Your task to perform on an android device: View the shopping cart on walmart. Add dell xps to the cart on walmart Image 0: 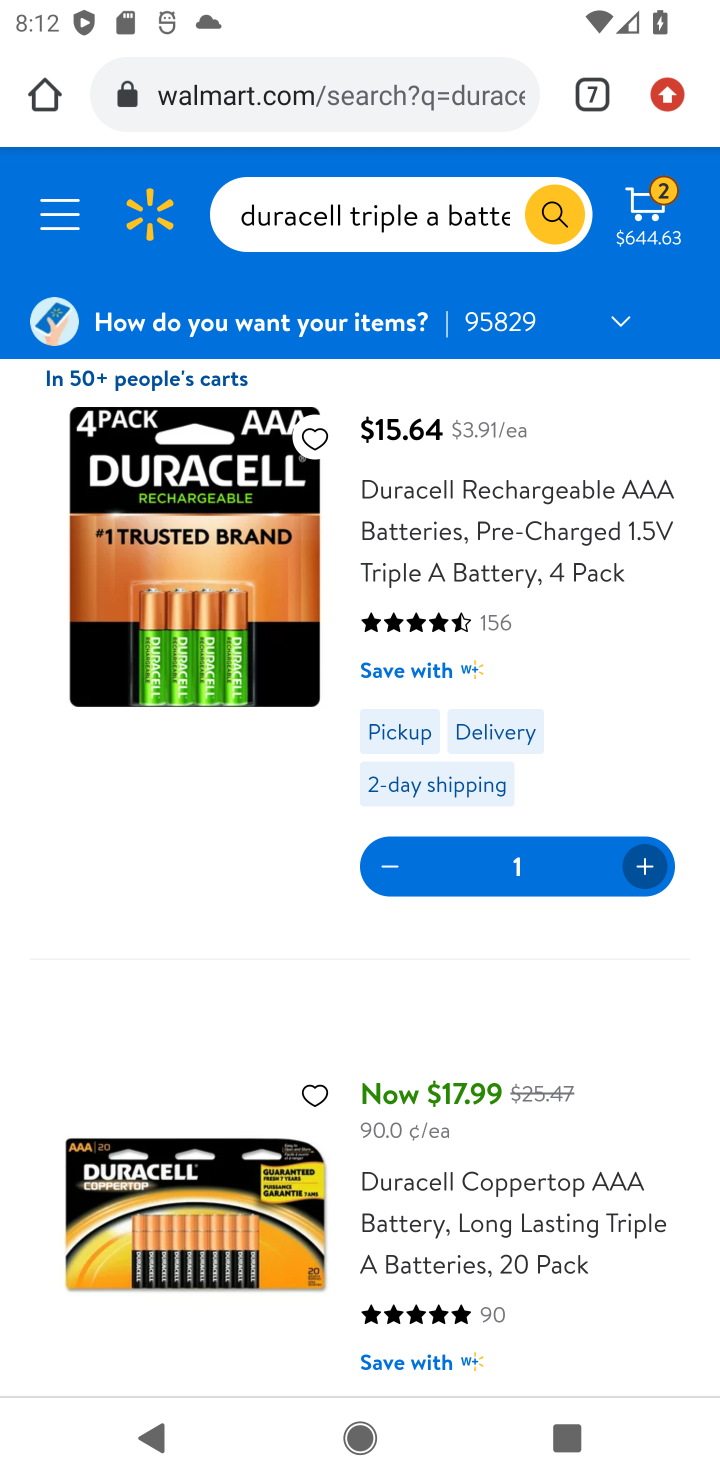
Step 0: click (638, 217)
Your task to perform on an android device: View the shopping cart on walmart. Add dell xps to the cart on walmart Image 1: 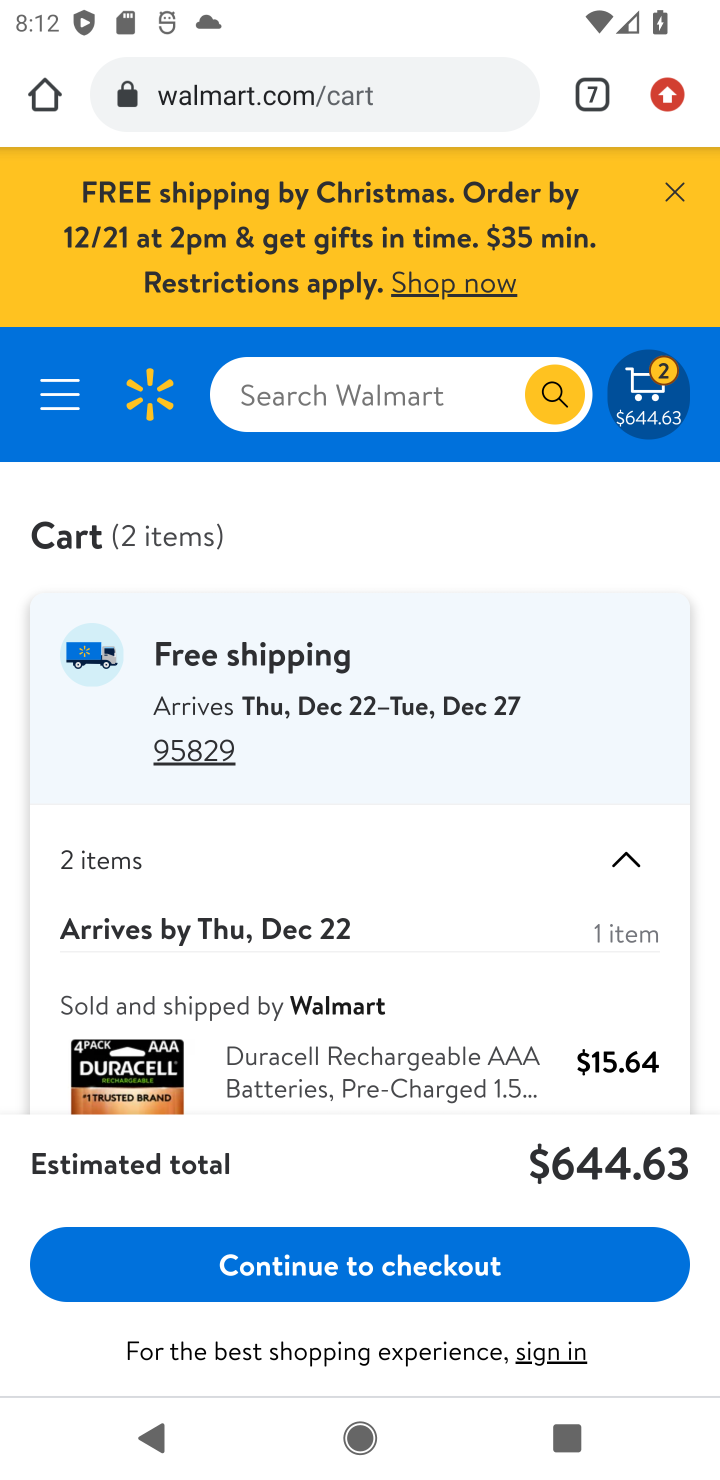
Step 1: click (671, 187)
Your task to perform on an android device: View the shopping cart on walmart. Add dell xps to the cart on walmart Image 2: 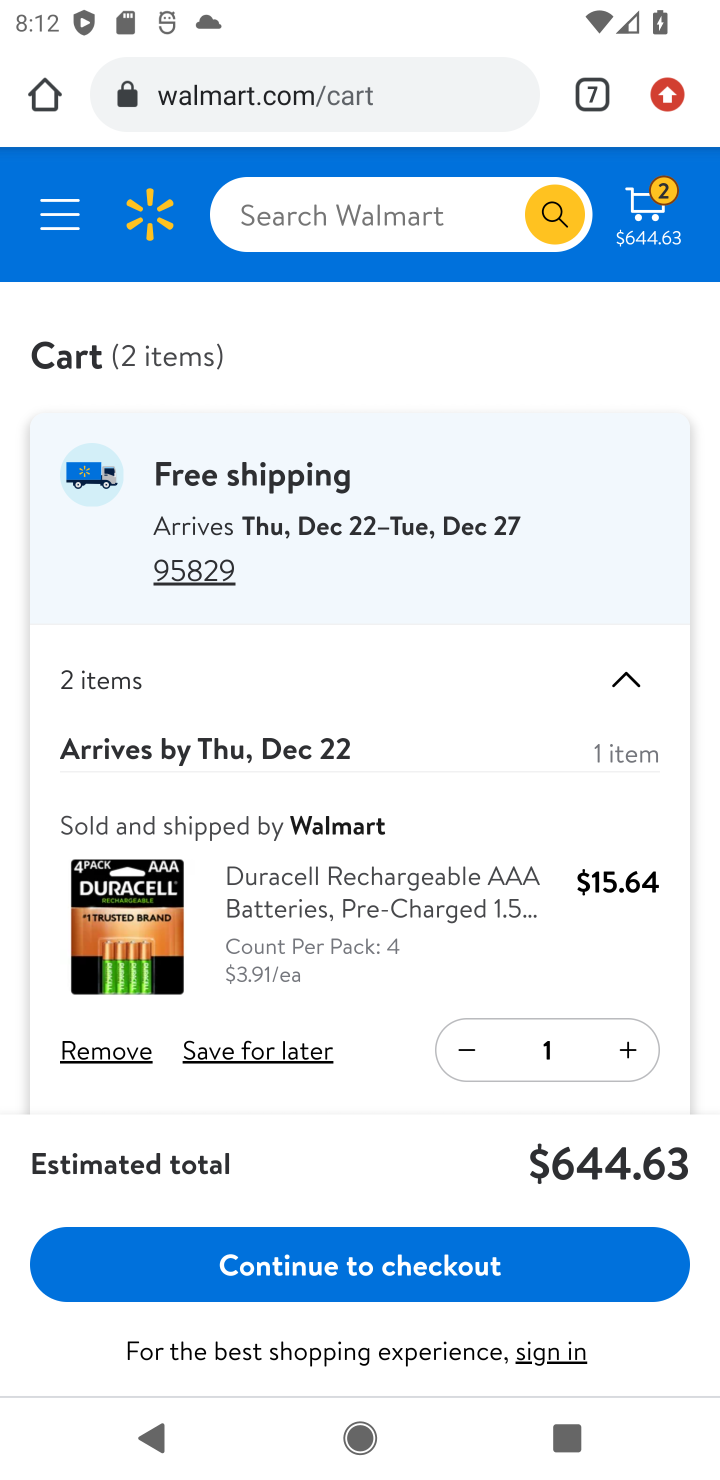
Step 2: click (379, 211)
Your task to perform on an android device: View the shopping cart on walmart. Add dell xps to the cart on walmart Image 3: 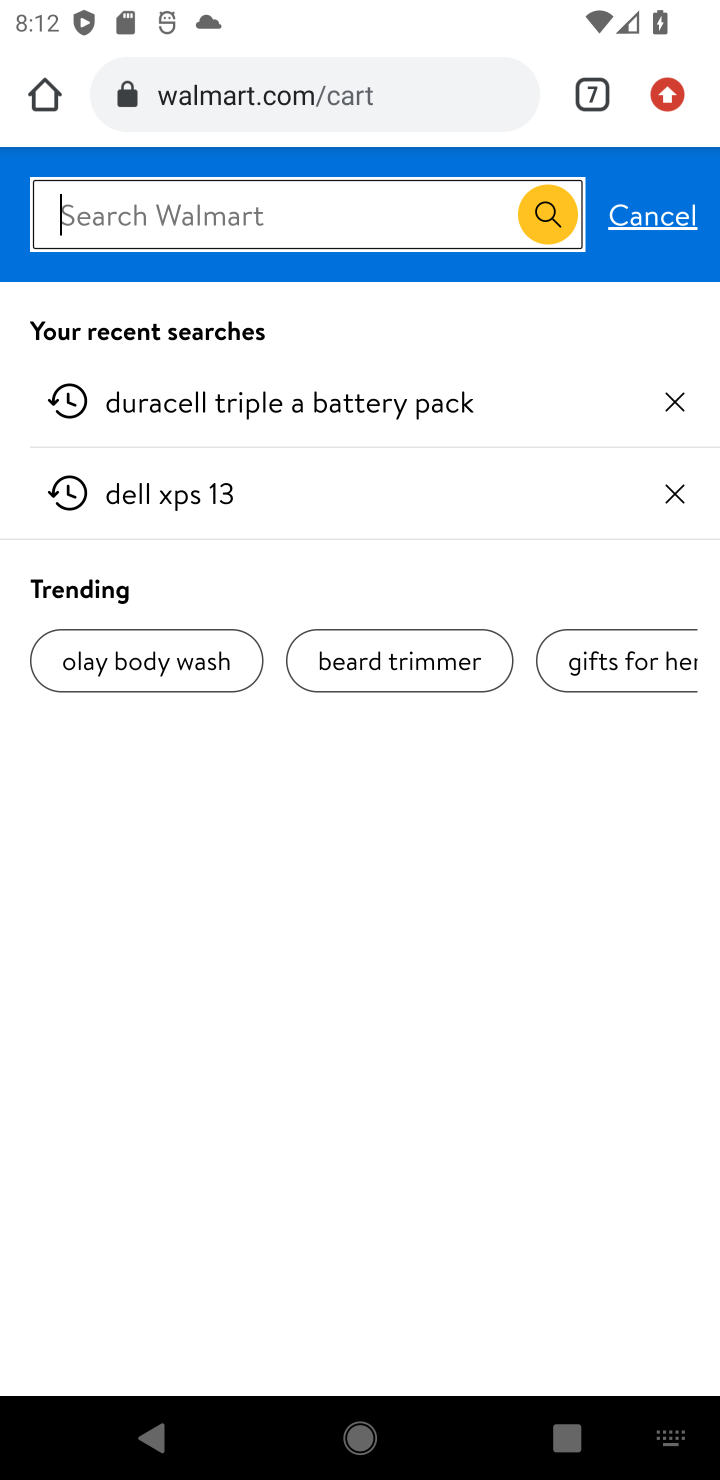
Step 3: type "dell xps"
Your task to perform on an android device: View the shopping cart on walmart. Add dell xps to the cart on walmart Image 4: 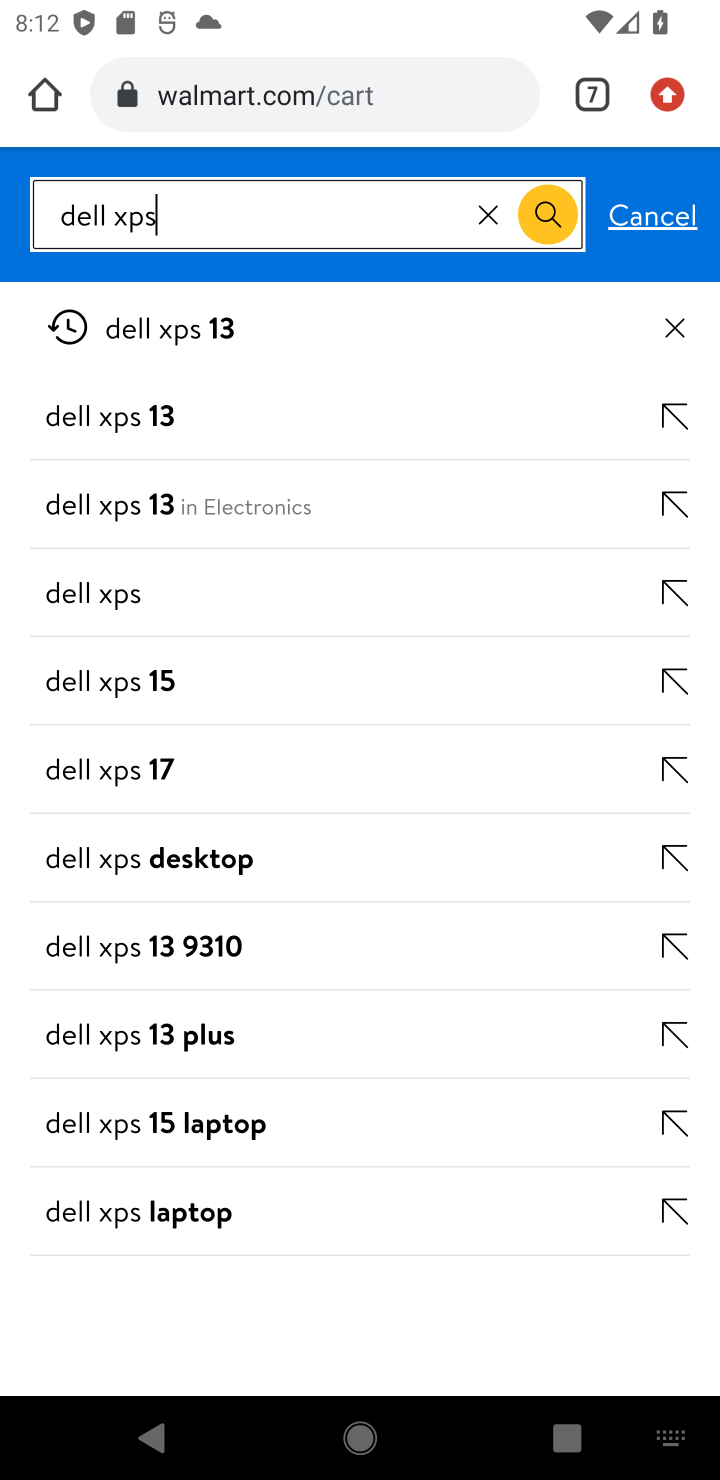
Step 4: click (140, 501)
Your task to perform on an android device: View the shopping cart on walmart. Add dell xps to the cart on walmart Image 5: 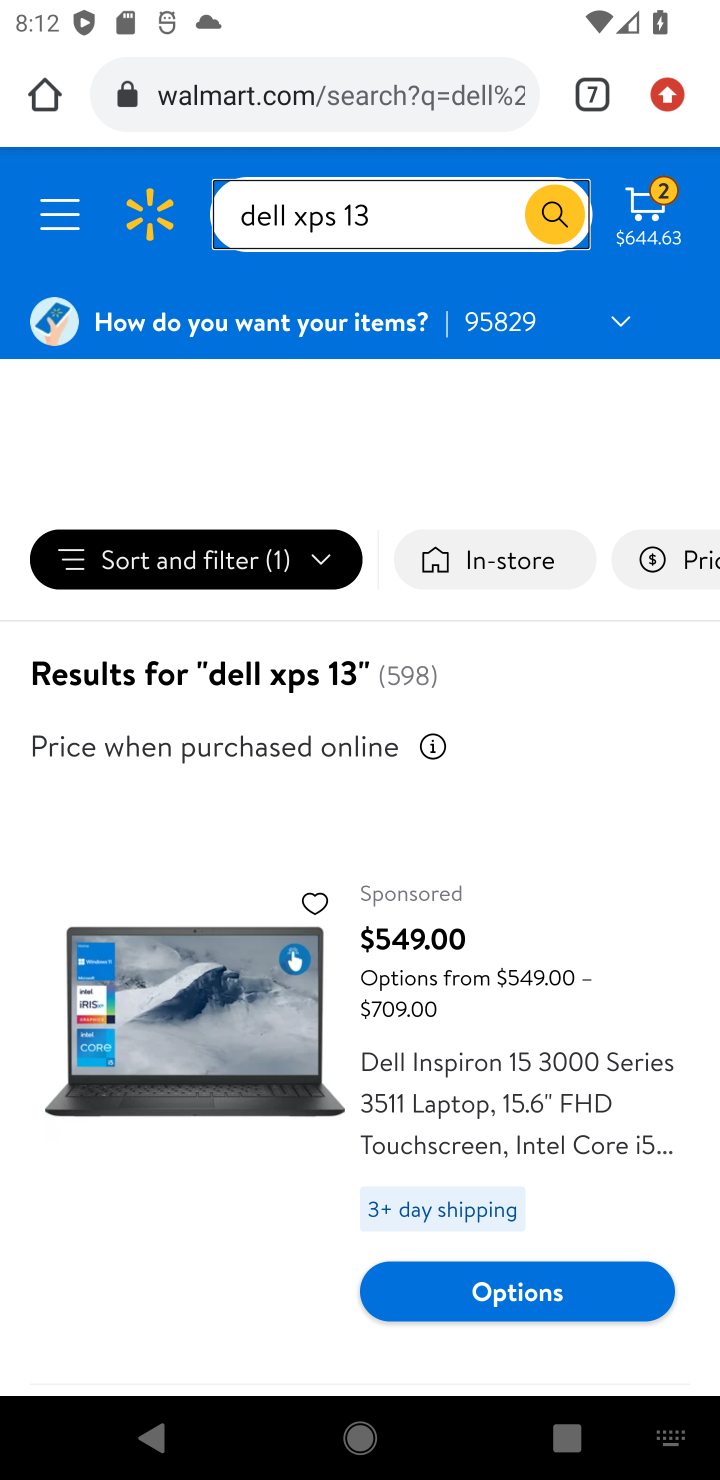
Step 5: drag from (246, 1217) to (370, 754)
Your task to perform on an android device: View the shopping cart on walmart. Add dell xps to the cart on walmart Image 6: 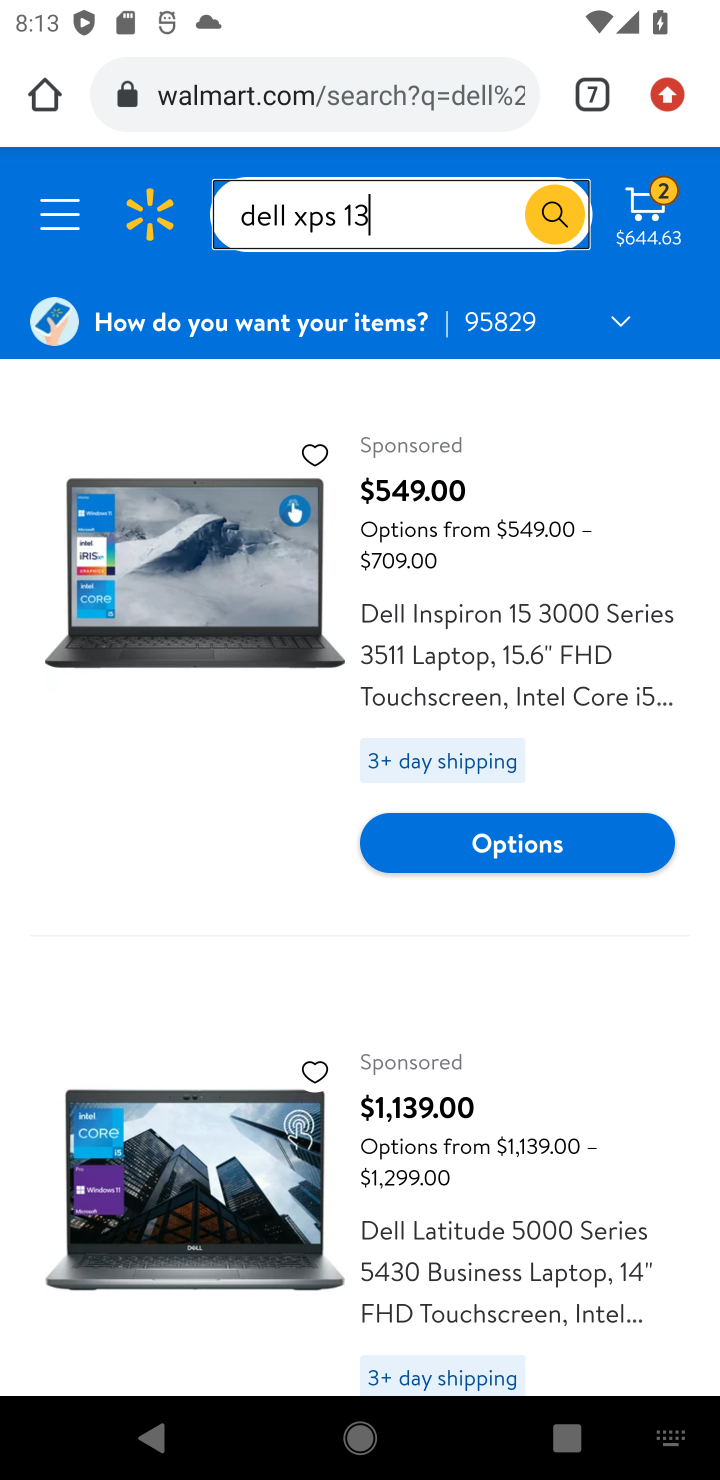
Step 6: drag from (549, 1020) to (570, 488)
Your task to perform on an android device: View the shopping cart on walmart. Add dell xps to the cart on walmart Image 7: 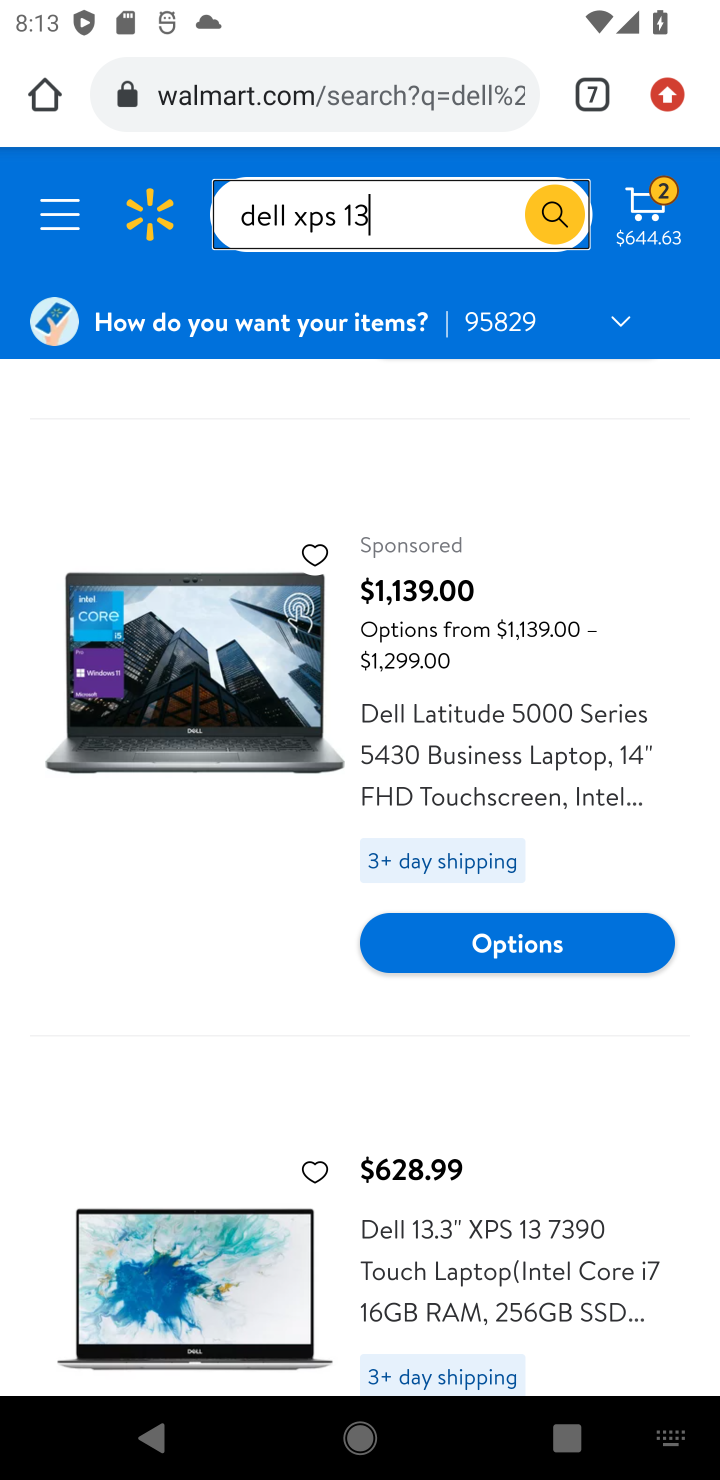
Step 7: drag from (553, 1171) to (615, 584)
Your task to perform on an android device: View the shopping cart on walmart. Add dell xps to the cart on walmart Image 8: 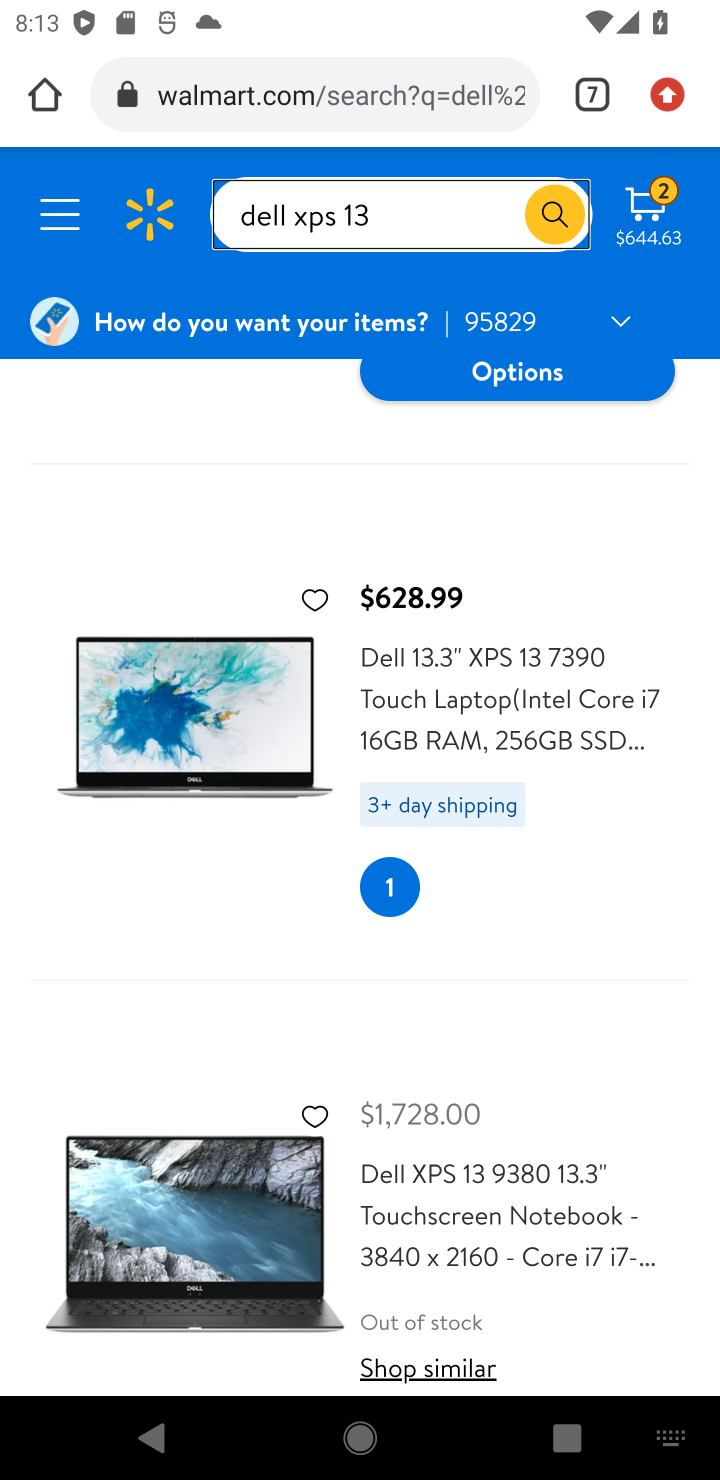
Step 8: click (468, 700)
Your task to perform on an android device: View the shopping cart on walmart. Add dell xps to the cart on walmart Image 9: 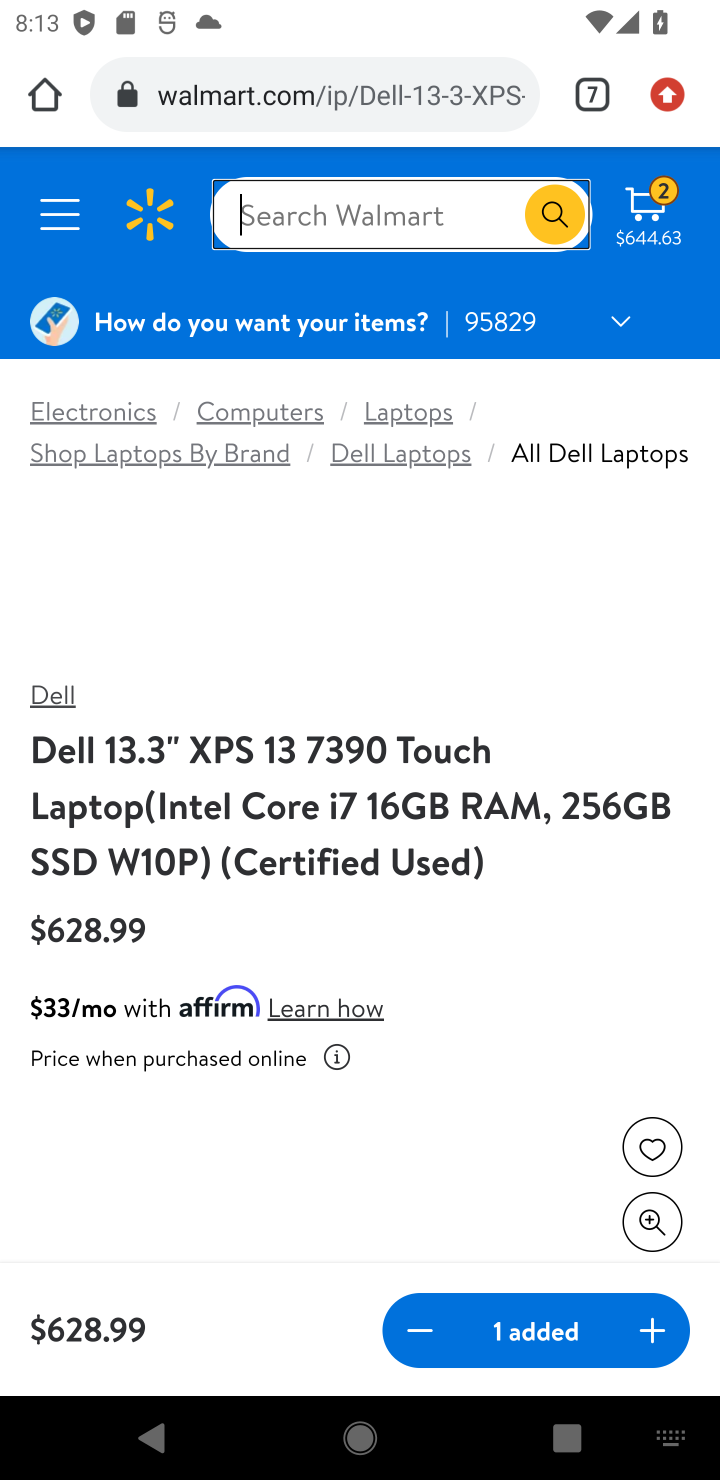
Step 9: click (658, 1328)
Your task to perform on an android device: View the shopping cart on walmart. Add dell xps to the cart on walmart Image 10: 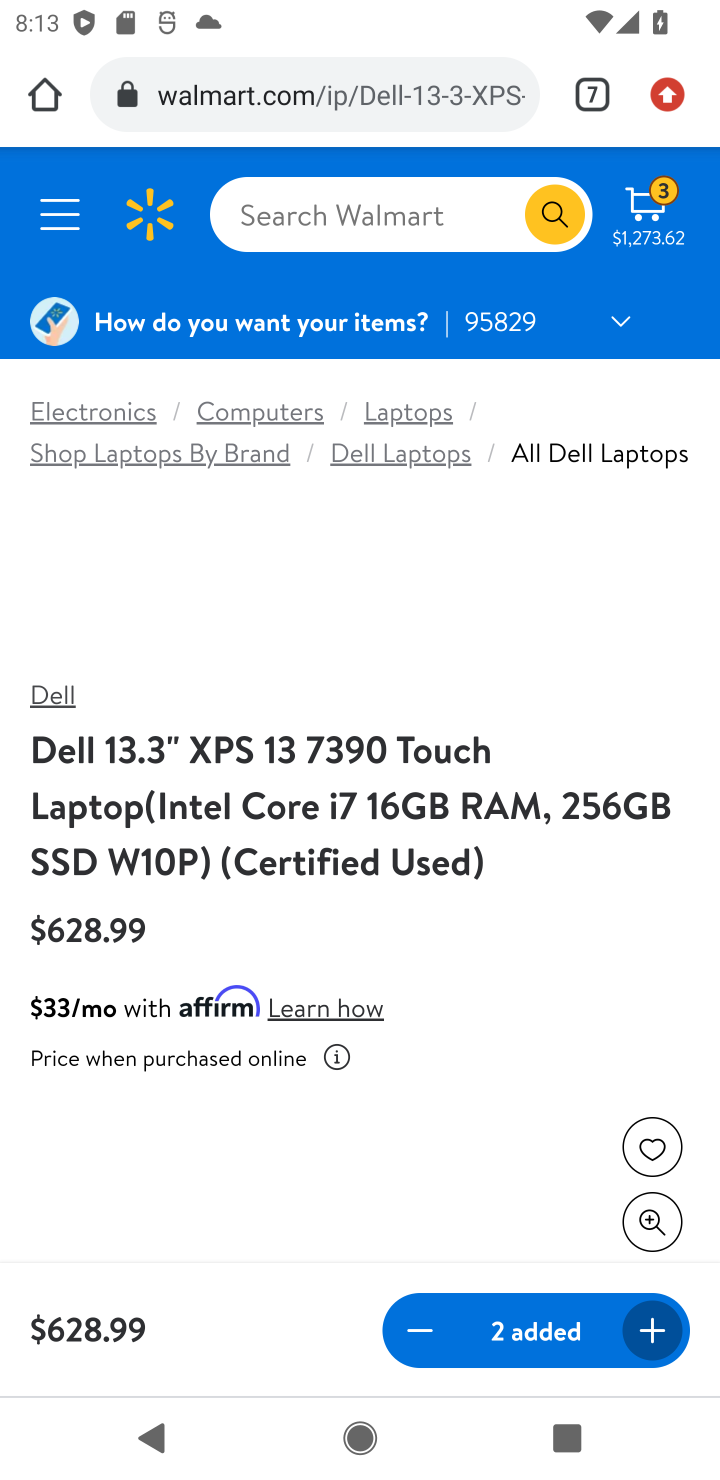
Step 10: task complete